Your task to perform on an android device: find photos in the google photos app Image 0: 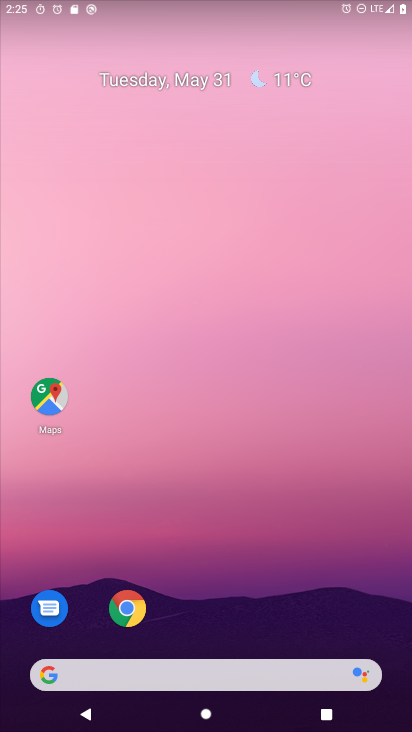
Step 0: drag from (287, 652) to (323, 1)
Your task to perform on an android device: find photos in the google photos app Image 1: 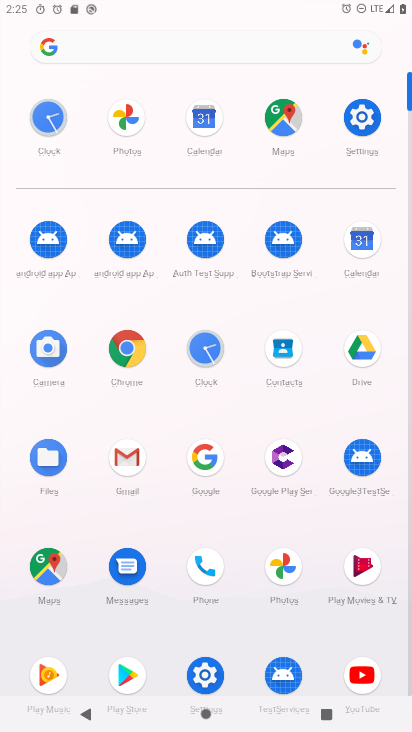
Step 1: click (282, 568)
Your task to perform on an android device: find photos in the google photos app Image 2: 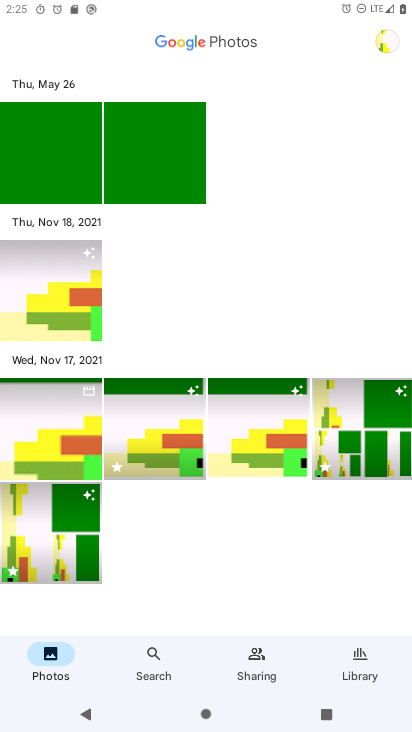
Step 2: click (43, 665)
Your task to perform on an android device: find photos in the google photos app Image 3: 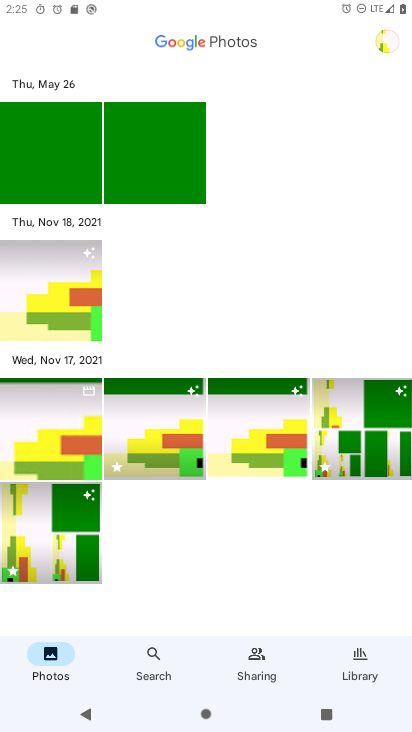
Step 3: task complete